Your task to perform on an android device: turn off location Image 0: 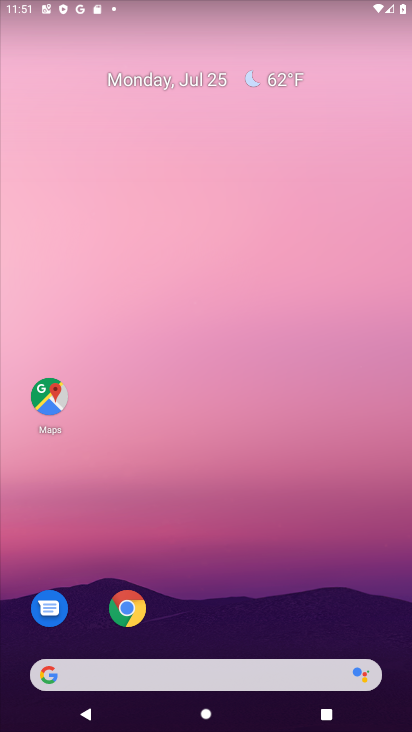
Step 0: drag from (232, 589) to (220, 47)
Your task to perform on an android device: turn off location Image 1: 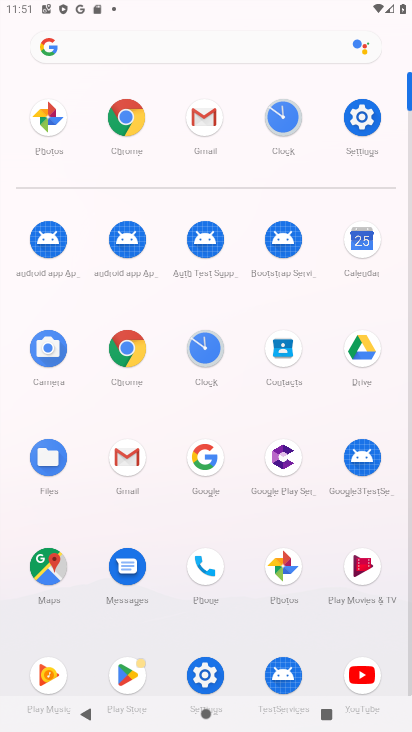
Step 1: click (370, 123)
Your task to perform on an android device: turn off location Image 2: 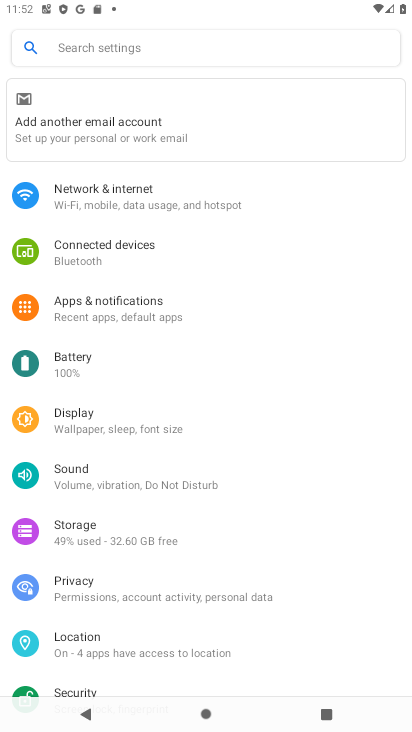
Step 2: click (80, 644)
Your task to perform on an android device: turn off location Image 3: 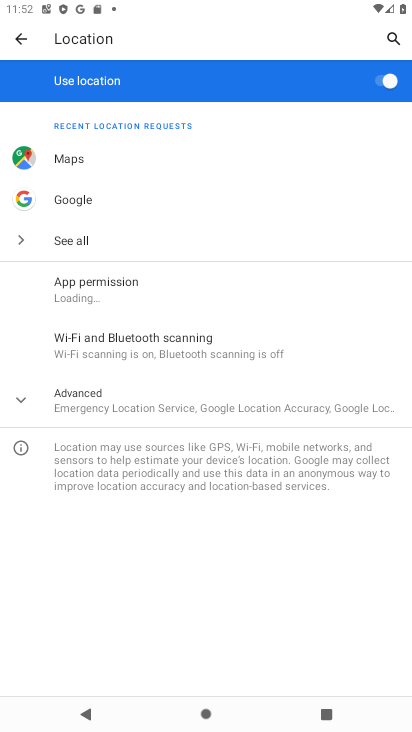
Step 3: click (385, 77)
Your task to perform on an android device: turn off location Image 4: 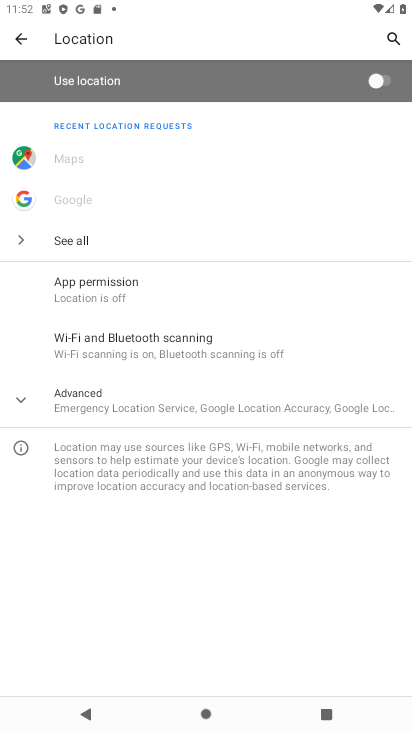
Step 4: task complete